Your task to perform on an android device: open app "Google Translate" Image 0: 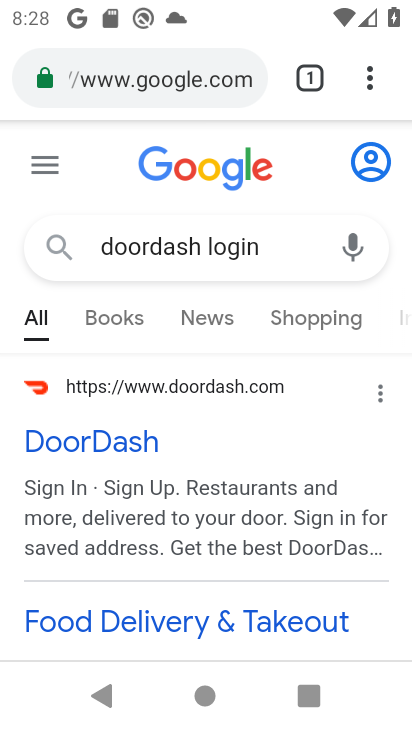
Step 0: press back button
Your task to perform on an android device: open app "Google Translate" Image 1: 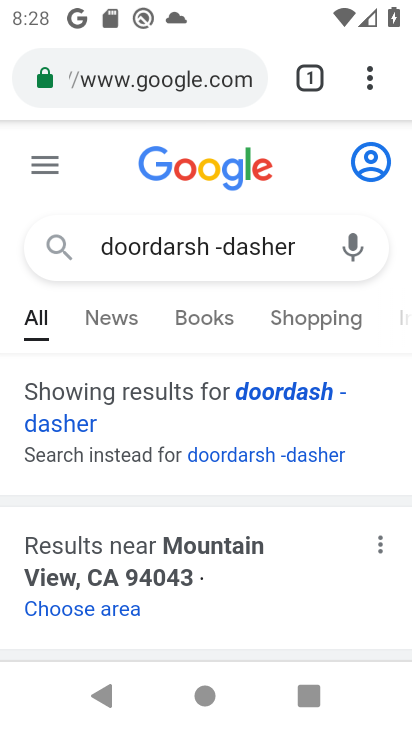
Step 1: press home button
Your task to perform on an android device: open app "Google Translate" Image 2: 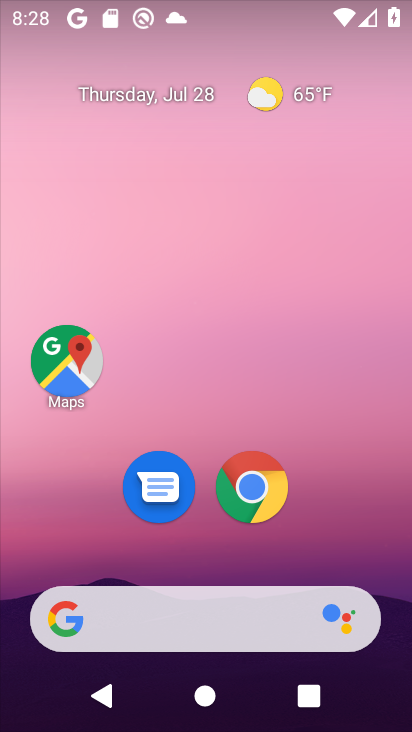
Step 2: drag from (275, 623) to (284, 150)
Your task to perform on an android device: open app "Google Translate" Image 3: 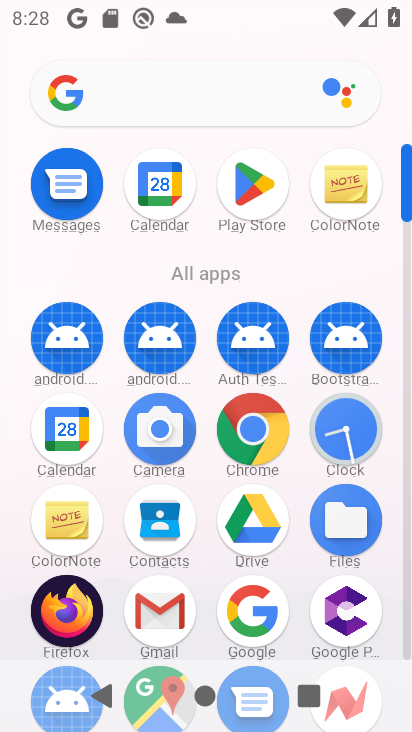
Step 3: click (226, 192)
Your task to perform on an android device: open app "Google Translate" Image 4: 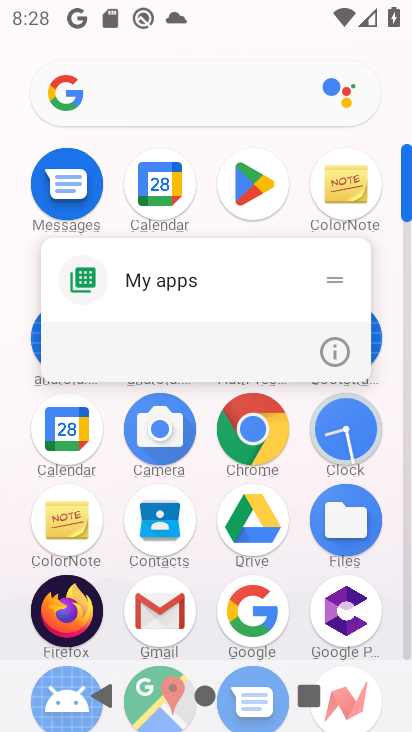
Step 4: click (246, 198)
Your task to perform on an android device: open app "Google Translate" Image 5: 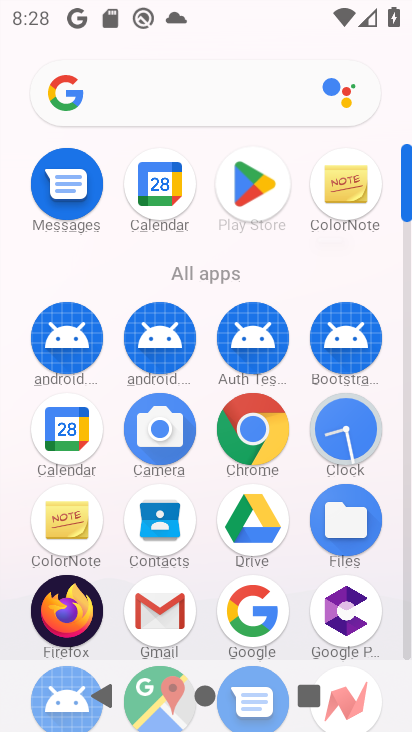
Step 5: click (248, 196)
Your task to perform on an android device: open app "Google Translate" Image 6: 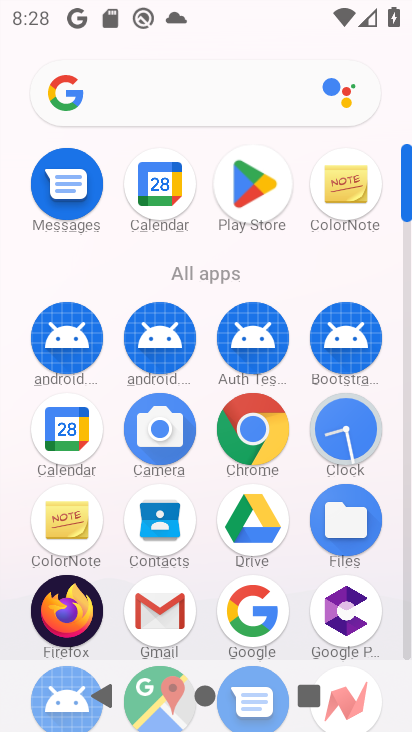
Step 6: click (248, 196)
Your task to perform on an android device: open app "Google Translate" Image 7: 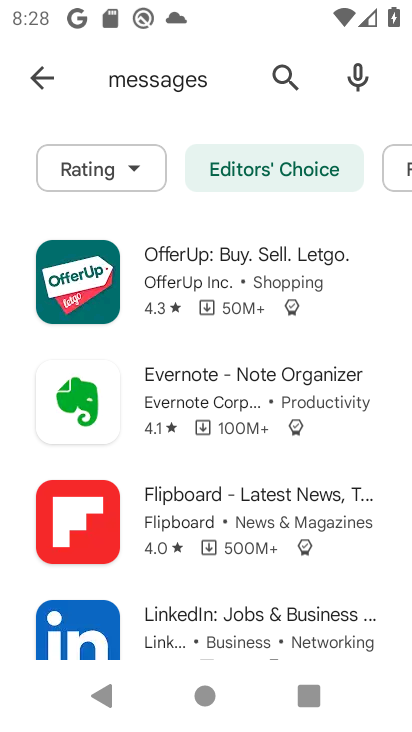
Step 7: click (41, 69)
Your task to perform on an android device: open app "Google Translate" Image 8: 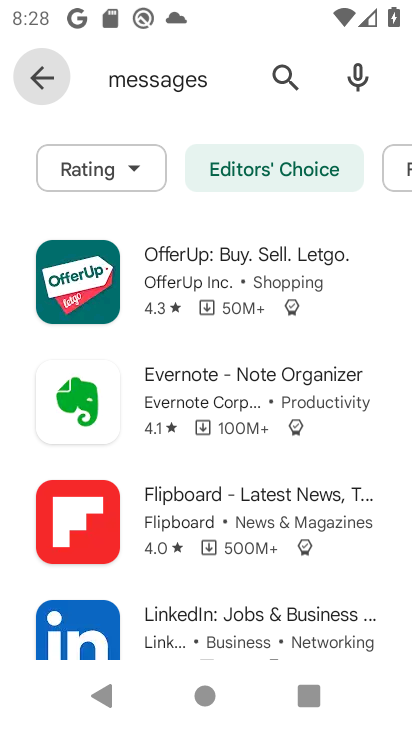
Step 8: click (38, 69)
Your task to perform on an android device: open app "Google Translate" Image 9: 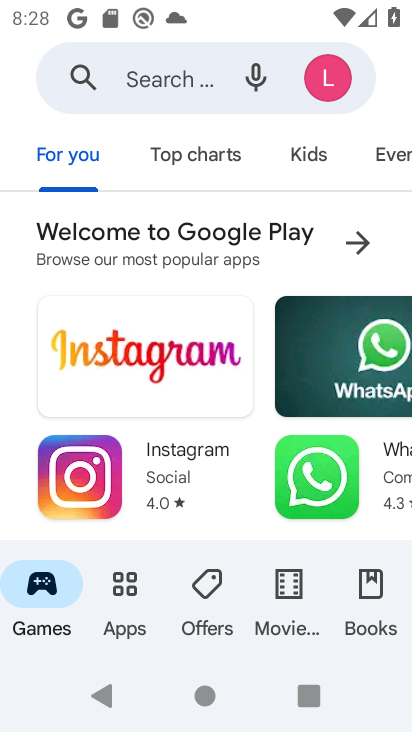
Step 9: click (130, 78)
Your task to perform on an android device: open app "Google Translate" Image 10: 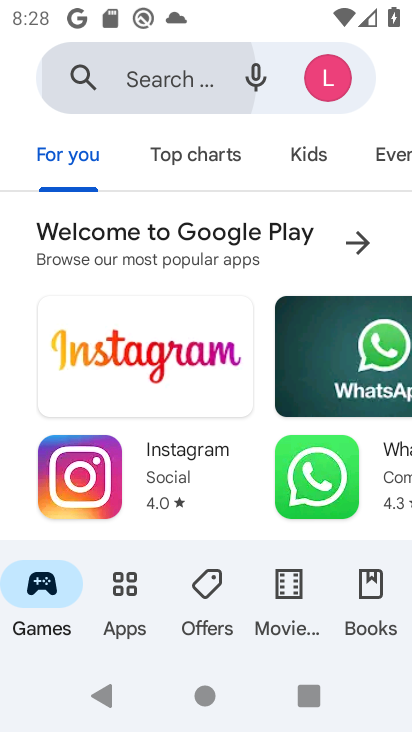
Step 10: click (130, 78)
Your task to perform on an android device: open app "Google Translate" Image 11: 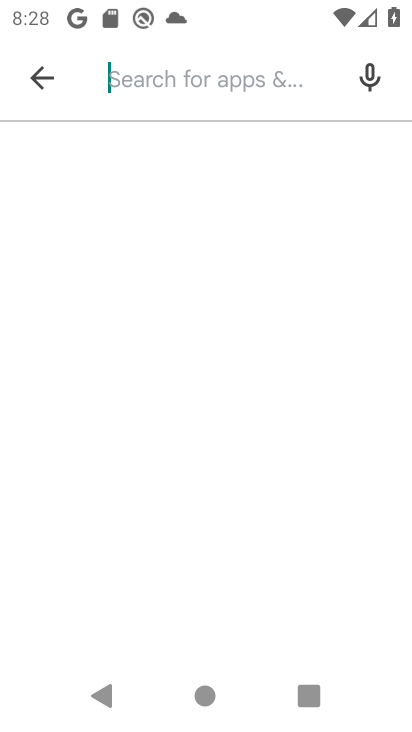
Step 11: click (130, 78)
Your task to perform on an android device: open app "Google Translate" Image 12: 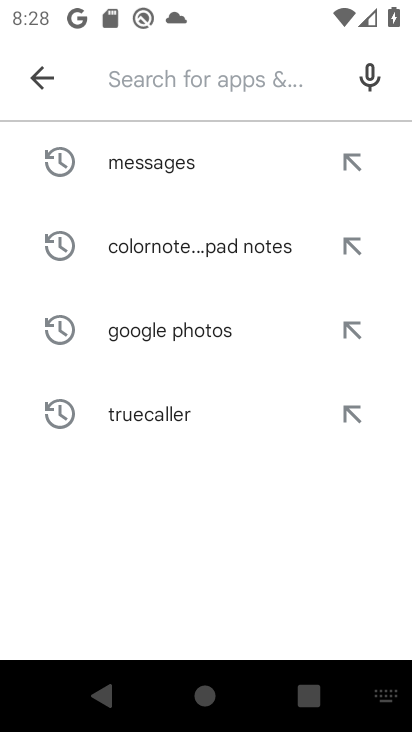
Step 12: click (130, 78)
Your task to perform on an android device: open app "Google Translate" Image 13: 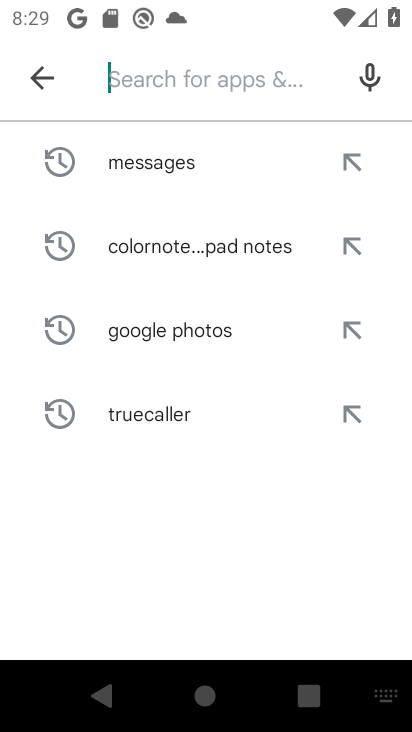
Step 13: type "google translate"
Your task to perform on an android device: open app "Google Translate" Image 14: 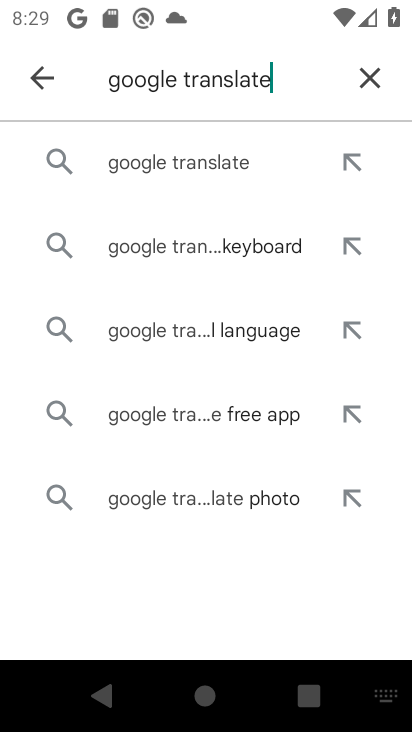
Step 14: click (199, 167)
Your task to perform on an android device: open app "Google Translate" Image 15: 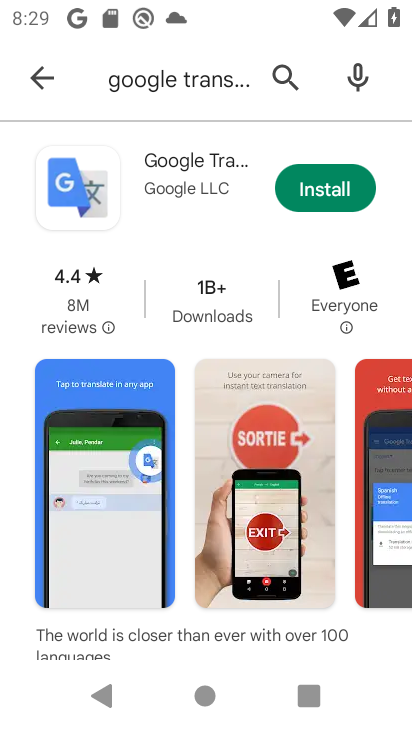
Step 15: click (308, 189)
Your task to perform on an android device: open app "Google Translate" Image 16: 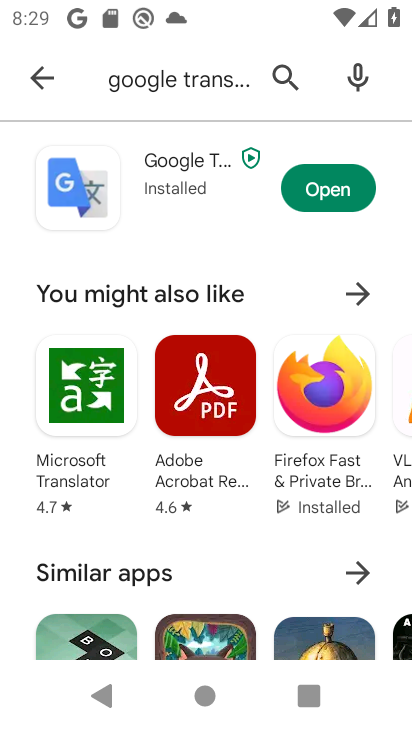
Step 16: click (329, 196)
Your task to perform on an android device: open app "Google Translate" Image 17: 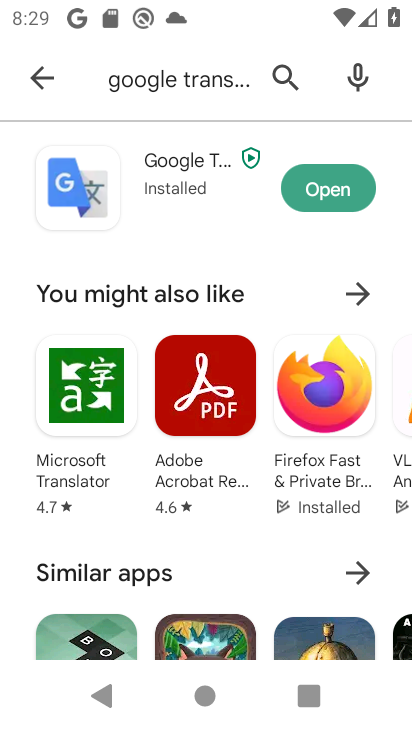
Step 17: click (334, 191)
Your task to perform on an android device: open app "Google Translate" Image 18: 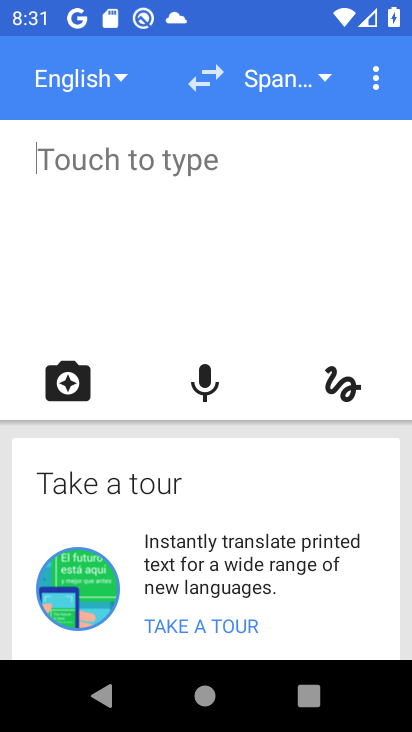
Step 18: press back button
Your task to perform on an android device: open app "Google Translate" Image 19: 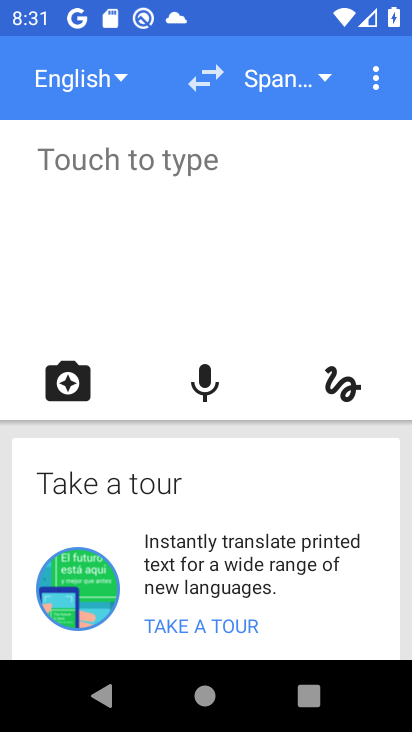
Step 19: press back button
Your task to perform on an android device: open app "Google Translate" Image 20: 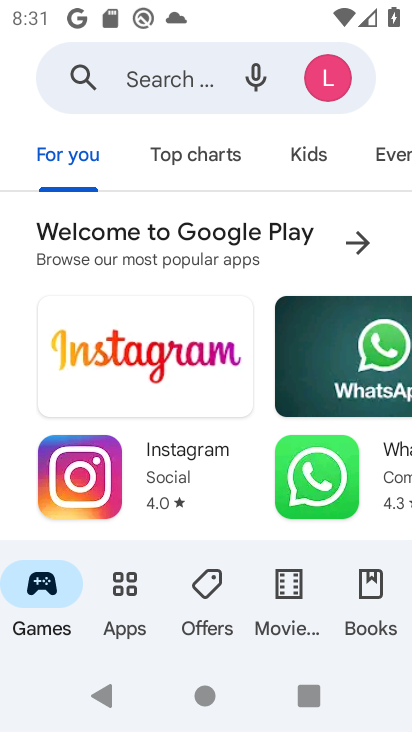
Step 20: click (160, 68)
Your task to perform on an android device: open app "Google Translate" Image 21: 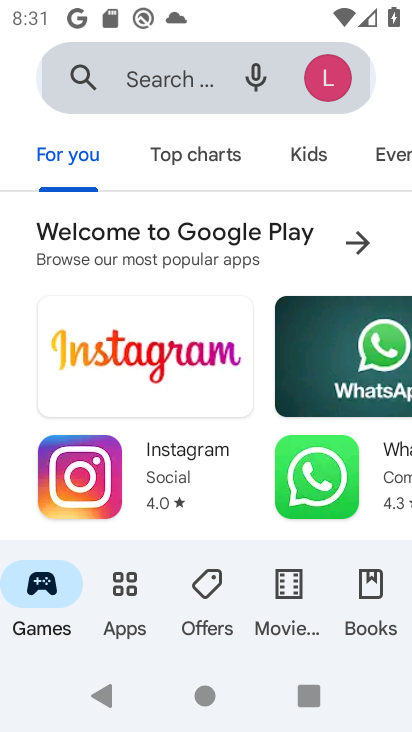
Step 21: click (159, 74)
Your task to perform on an android device: open app "Google Translate" Image 22: 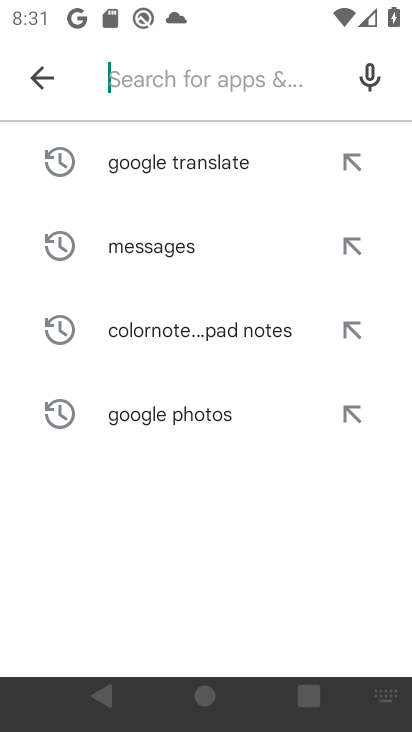
Step 22: click (159, 73)
Your task to perform on an android device: open app "Google Translate" Image 23: 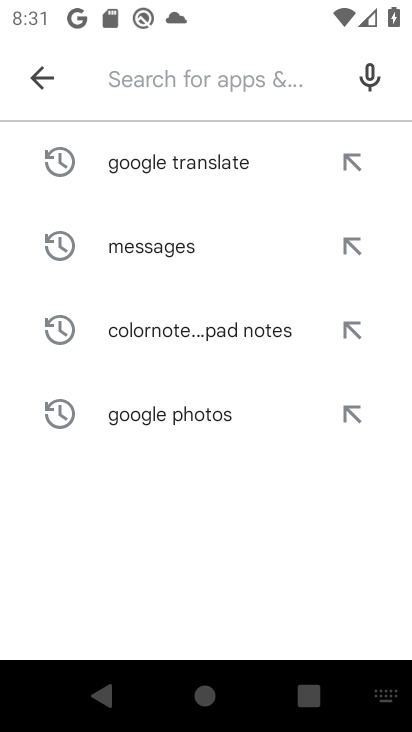
Step 23: click (159, 73)
Your task to perform on an android device: open app "Google Translate" Image 24: 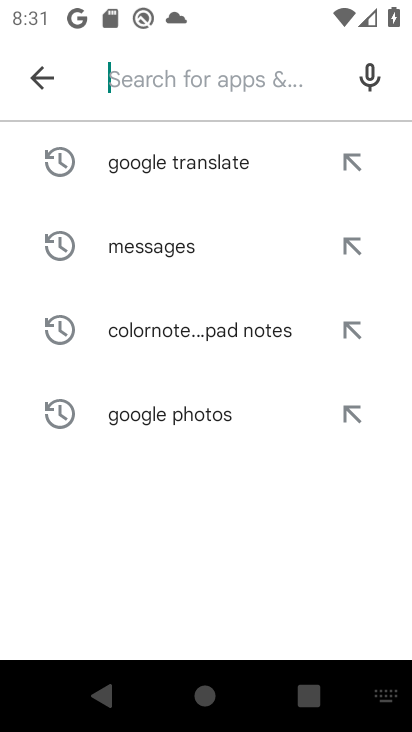
Step 24: click (202, 162)
Your task to perform on an android device: open app "Google Translate" Image 25: 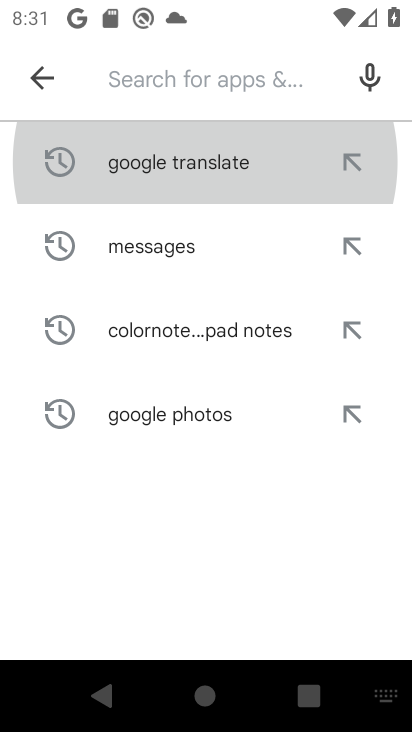
Step 25: click (202, 162)
Your task to perform on an android device: open app "Google Translate" Image 26: 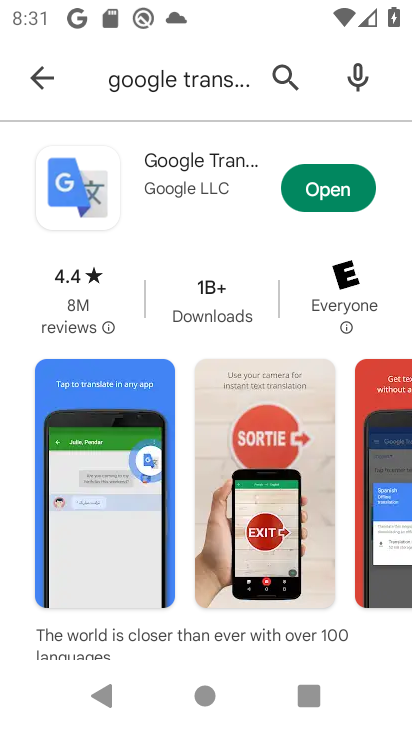
Step 26: click (305, 189)
Your task to perform on an android device: open app "Google Translate" Image 27: 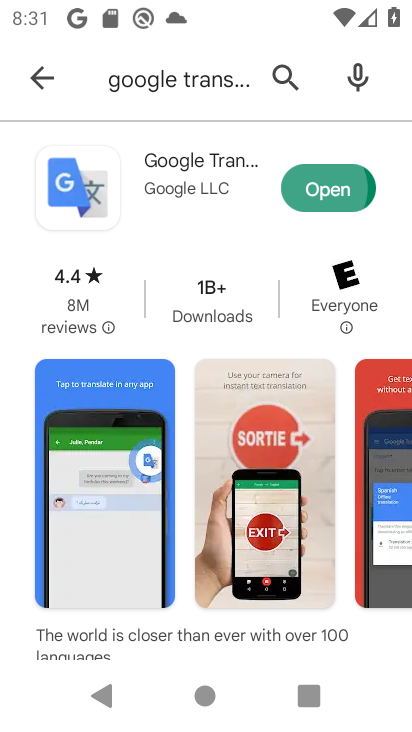
Step 27: click (305, 190)
Your task to perform on an android device: open app "Google Translate" Image 28: 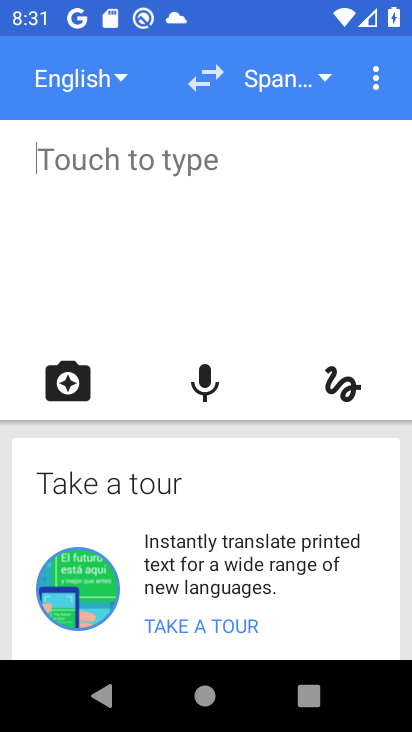
Step 28: task complete